Your task to perform on an android device: stop showing notifications on the lock screen Image 0: 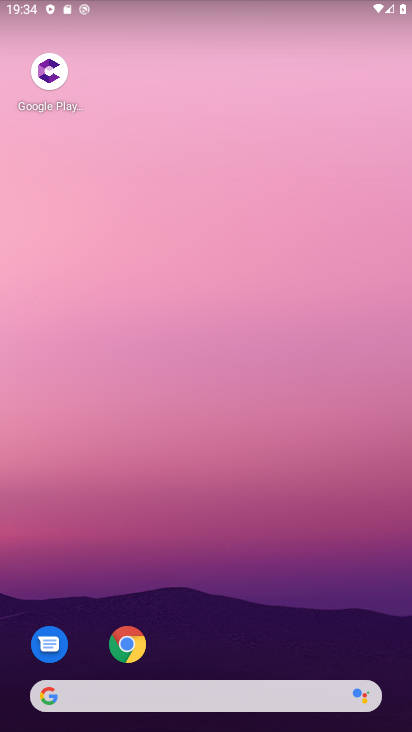
Step 0: drag from (404, 716) to (316, 125)
Your task to perform on an android device: stop showing notifications on the lock screen Image 1: 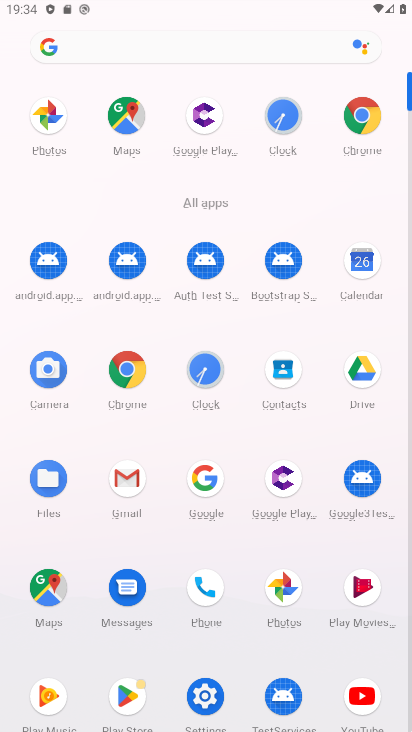
Step 1: click (197, 672)
Your task to perform on an android device: stop showing notifications on the lock screen Image 2: 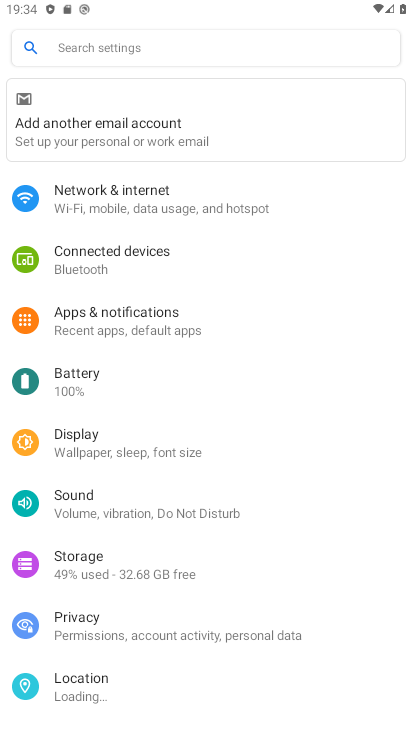
Step 2: click (59, 434)
Your task to perform on an android device: stop showing notifications on the lock screen Image 3: 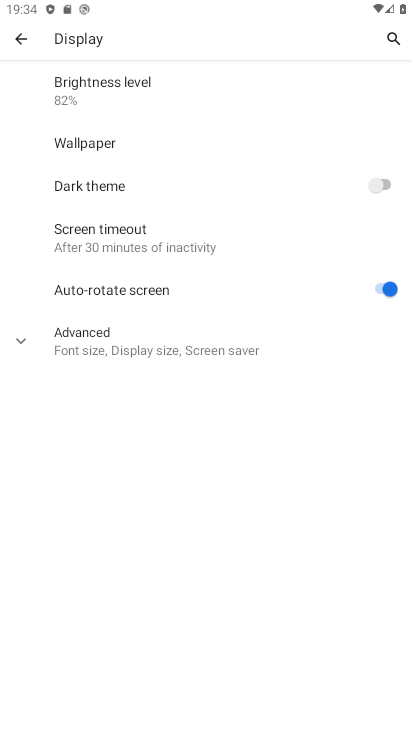
Step 3: click (21, 340)
Your task to perform on an android device: stop showing notifications on the lock screen Image 4: 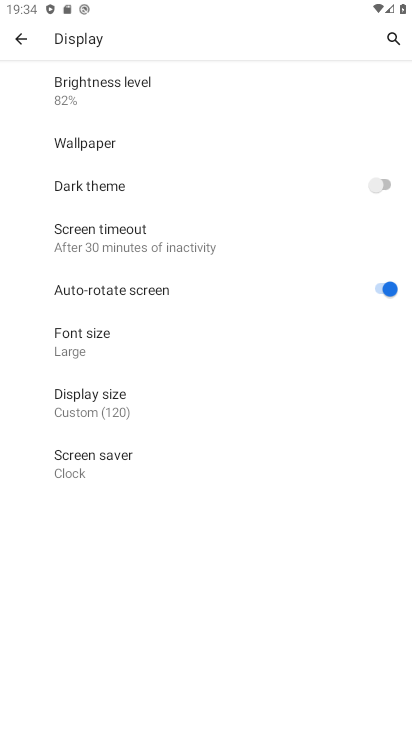
Step 4: task complete